Your task to perform on an android device: open app "Facebook Messenger" (install if not already installed) and enter user name: "divorce@inbox.com" and password: "caviar" Image 0: 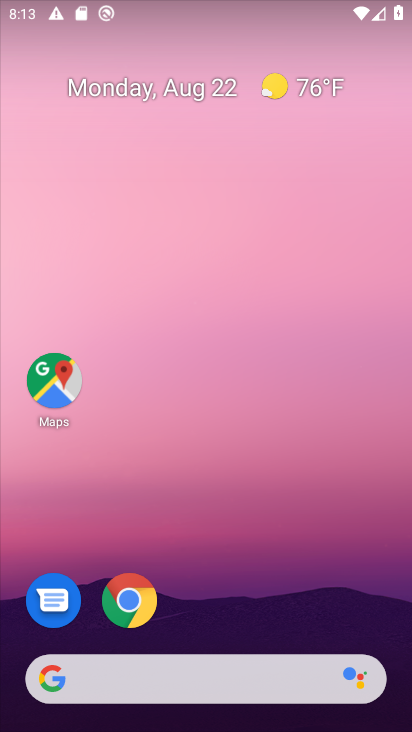
Step 0: drag from (219, 608) to (219, 233)
Your task to perform on an android device: open app "Facebook Messenger" (install if not already installed) and enter user name: "divorce@inbox.com" and password: "caviar" Image 1: 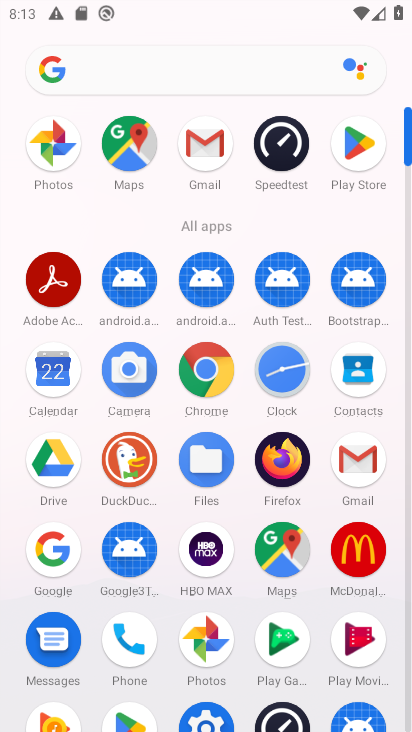
Step 1: click (358, 137)
Your task to perform on an android device: open app "Facebook Messenger" (install if not already installed) and enter user name: "divorce@inbox.com" and password: "caviar" Image 2: 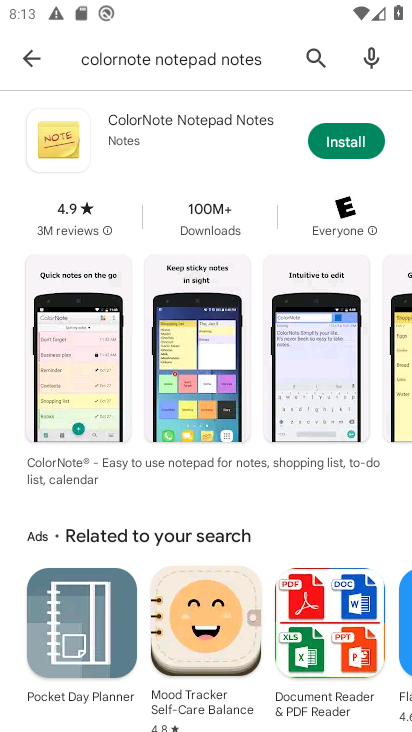
Step 2: click (316, 55)
Your task to perform on an android device: open app "Facebook Messenger" (install if not already installed) and enter user name: "divorce@inbox.com" and password: "caviar" Image 3: 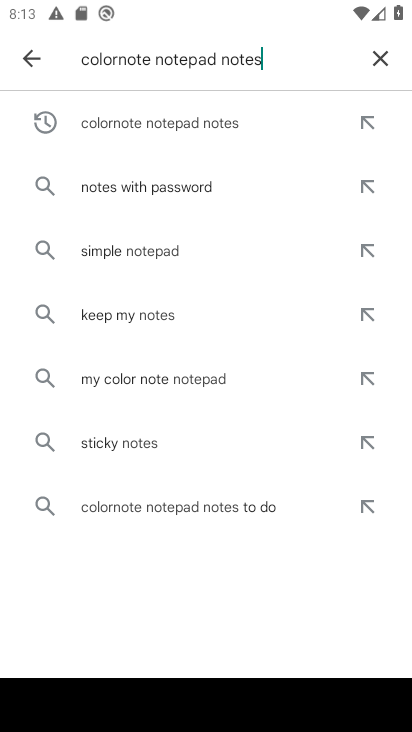
Step 3: click (369, 52)
Your task to perform on an android device: open app "Facebook Messenger" (install if not already installed) and enter user name: "divorce@inbox.com" and password: "caviar" Image 4: 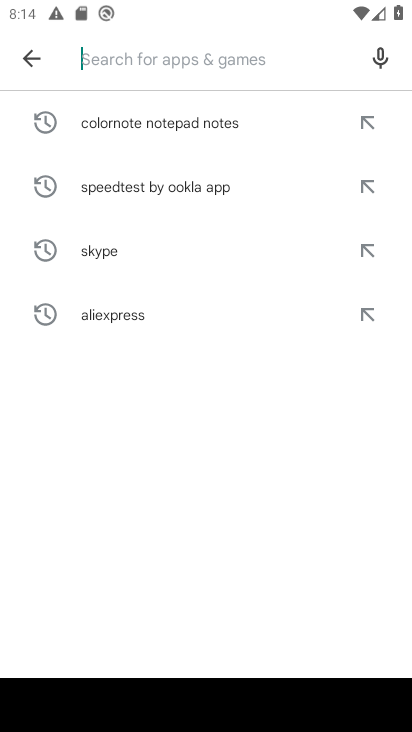
Step 4: type "Facebook Messenger"
Your task to perform on an android device: open app "Facebook Messenger" (install if not already installed) and enter user name: "divorce@inbox.com" and password: "caviar" Image 5: 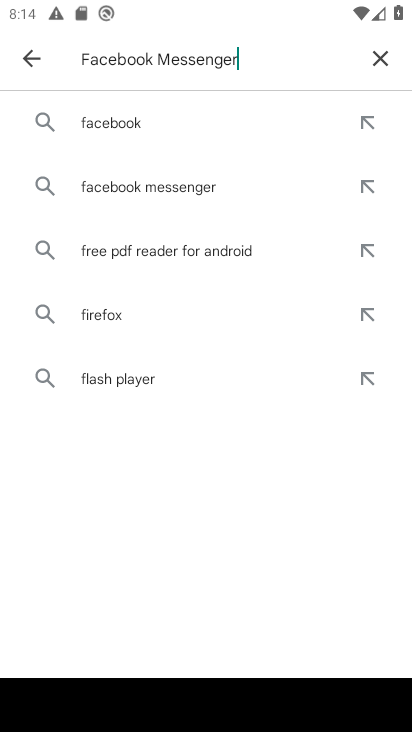
Step 5: type ""
Your task to perform on an android device: open app "Facebook Messenger" (install if not already installed) and enter user name: "divorce@inbox.com" and password: "caviar" Image 6: 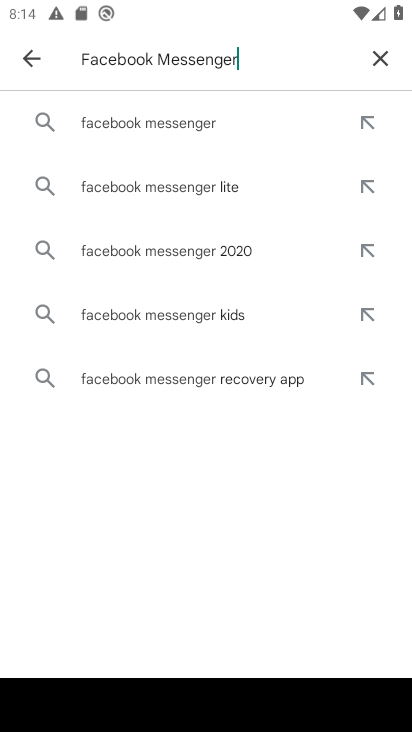
Step 6: click (194, 130)
Your task to perform on an android device: open app "Facebook Messenger" (install if not already installed) and enter user name: "divorce@inbox.com" and password: "caviar" Image 7: 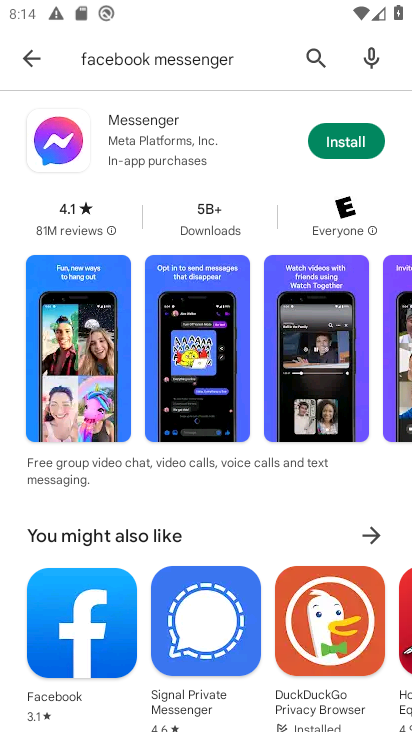
Step 7: click (322, 135)
Your task to perform on an android device: open app "Facebook Messenger" (install if not already installed) and enter user name: "divorce@inbox.com" and password: "caviar" Image 8: 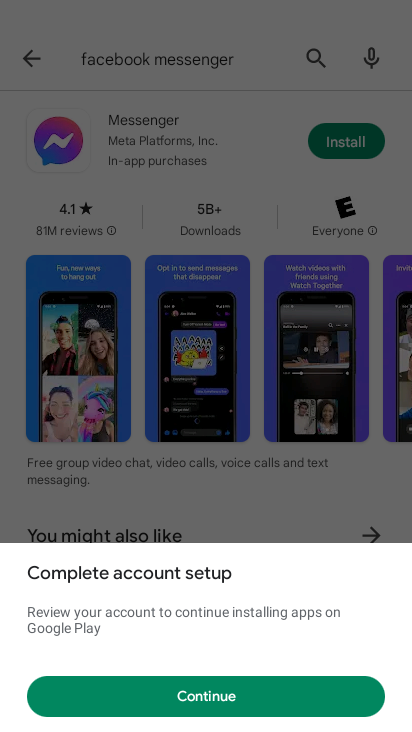
Step 8: click (214, 691)
Your task to perform on an android device: open app "Facebook Messenger" (install if not already installed) and enter user name: "divorce@inbox.com" and password: "caviar" Image 9: 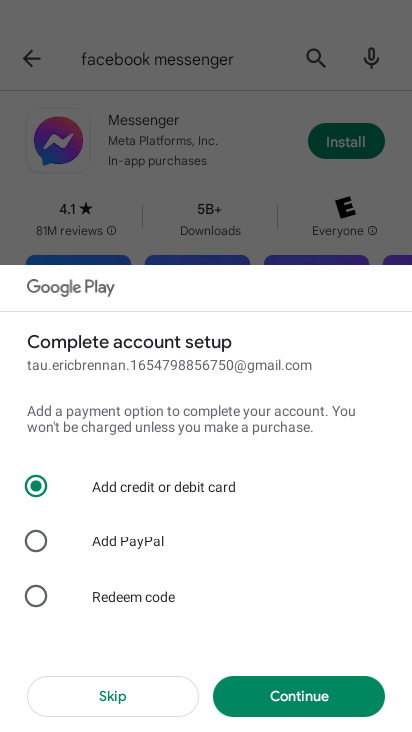
Step 9: click (137, 699)
Your task to perform on an android device: open app "Facebook Messenger" (install if not already installed) and enter user name: "divorce@inbox.com" and password: "caviar" Image 10: 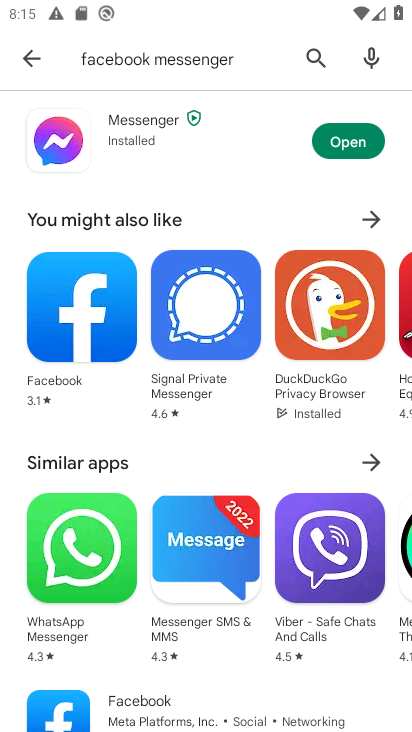
Step 10: click (357, 136)
Your task to perform on an android device: open app "Facebook Messenger" (install if not already installed) and enter user name: "divorce@inbox.com" and password: "caviar" Image 11: 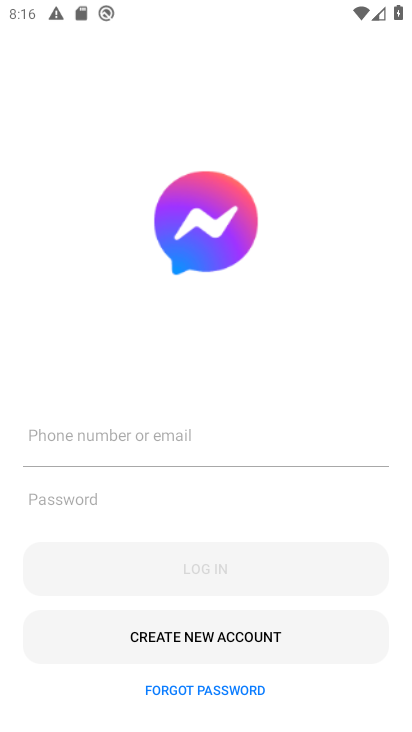
Step 11: click (142, 441)
Your task to perform on an android device: open app "Facebook Messenger" (install if not already installed) and enter user name: "divorce@inbox.com" and password: "caviar" Image 12: 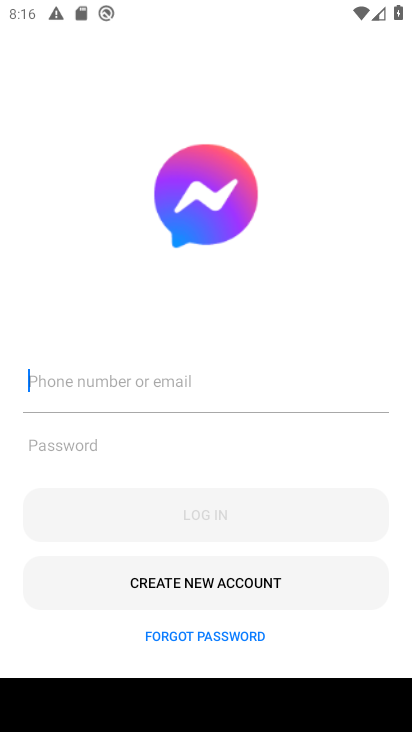
Step 12: type "divorce@inbox.com"
Your task to perform on an android device: open app "Facebook Messenger" (install if not already installed) and enter user name: "divorce@inbox.com" and password: "caviar" Image 13: 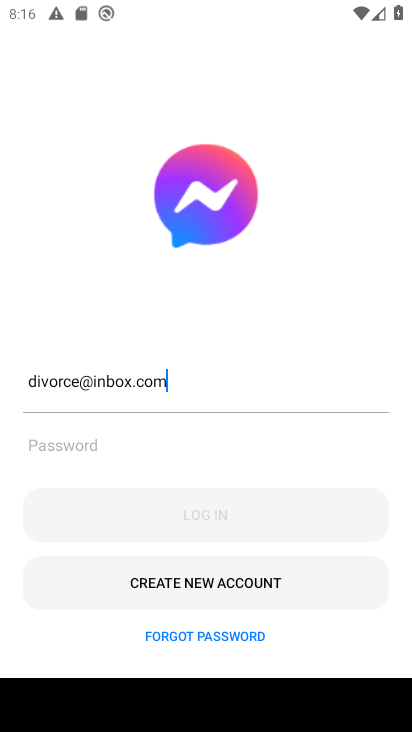
Step 13: type ""
Your task to perform on an android device: open app "Facebook Messenger" (install if not already installed) and enter user name: "divorce@inbox.com" and password: "caviar" Image 14: 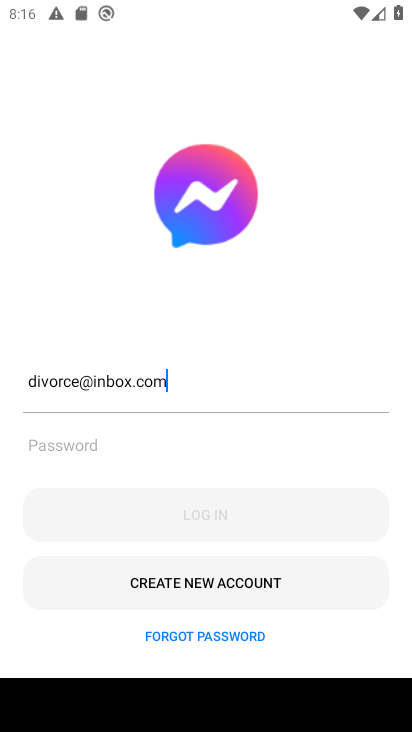
Step 14: click (29, 446)
Your task to perform on an android device: open app "Facebook Messenger" (install if not already installed) and enter user name: "divorce@inbox.com" and password: "caviar" Image 15: 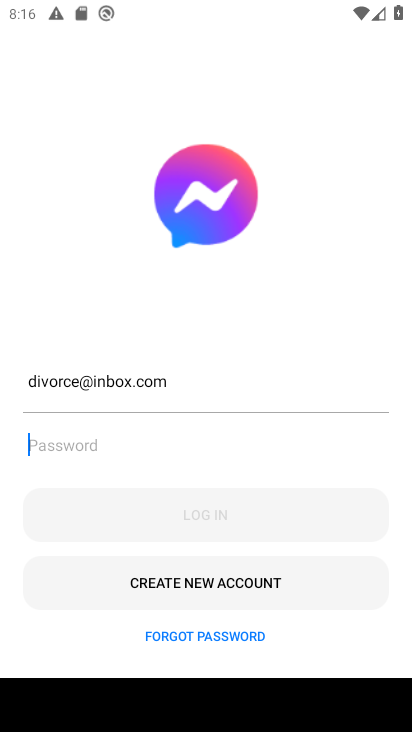
Step 15: type "caviar"
Your task to perform on an android device: open app "Facebook Messenger" (install if not already installed) and enter user name: "divorce@inbox.com" and password: "caviar" Image 16: 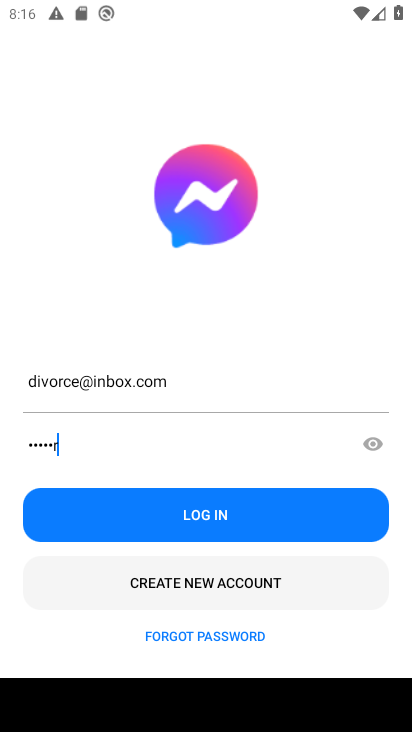
Step 16: type ""
Your task to perform on an android device: open app "Facebook Messenger" (install if not already installed) and enter user name: "divorce@inbox.com" and password: "caviar" Image 17: 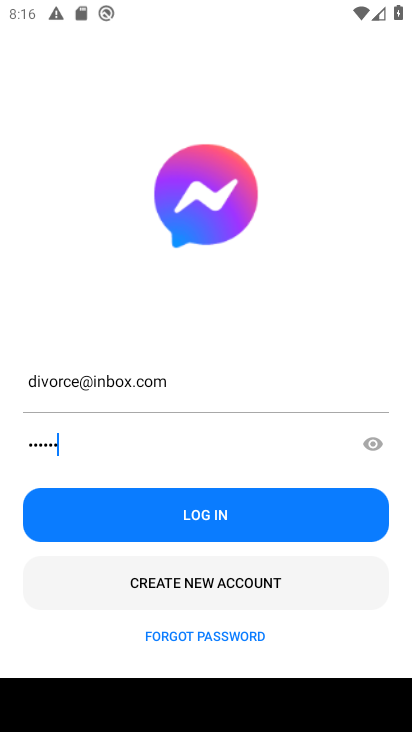
Step 17: click (245, 522)
Your task to perform on an android device: open app "Facebook Messenger" (install if not already installed) and enter user name: "divorce@inbox.com" and password: "caviar" Image 18: 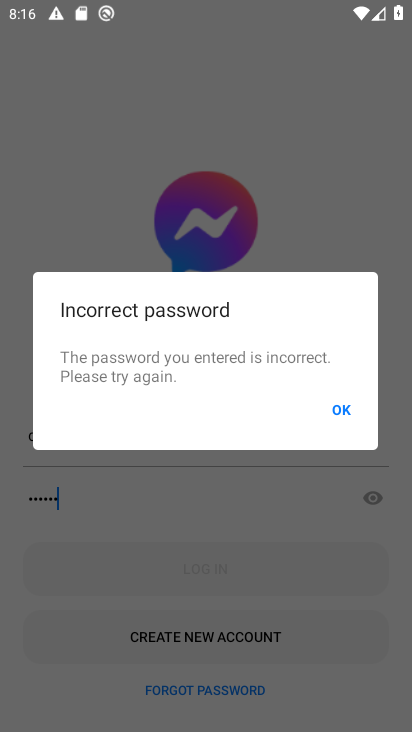
Step 18: task complete